Your task to perform on an android device: turn off airplane mode Image 0: 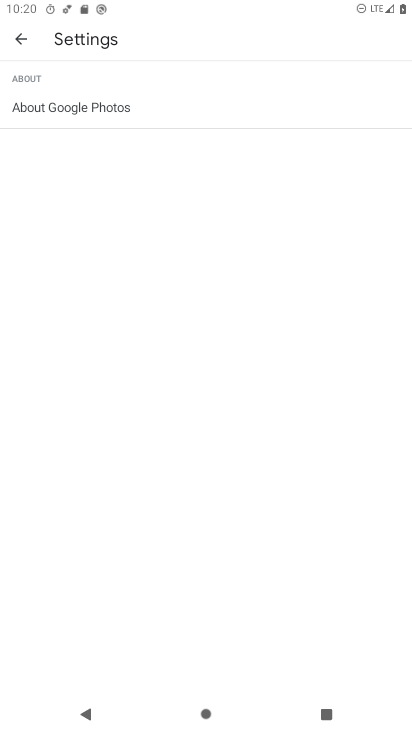
Step 0: press home button
Your task to perform on an android device: turn off airplane mode Image 1: 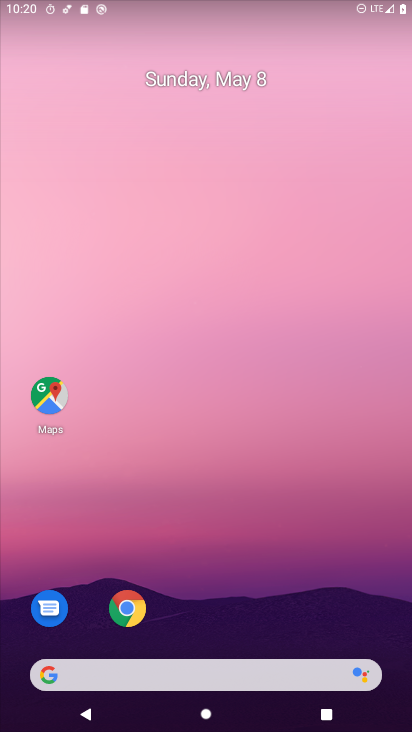
Step 1: drag from (149, 629) to (183, 167)
Your task to perform on an android device: turn off airplane mode Image 2: 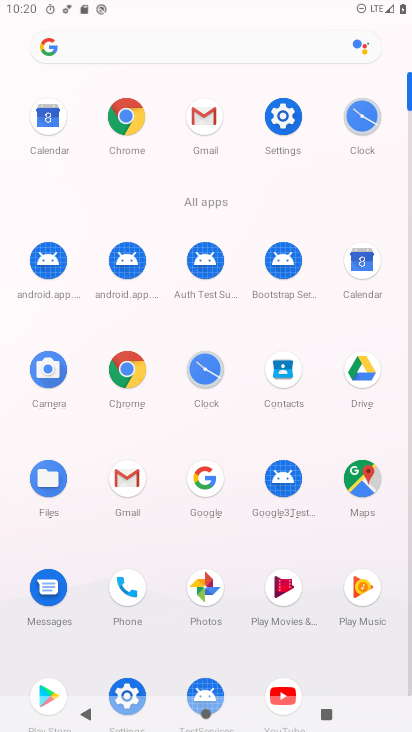
Step 2: click (123, 687)
Your task to perform on an android device: turn off airplane mode Image 3: 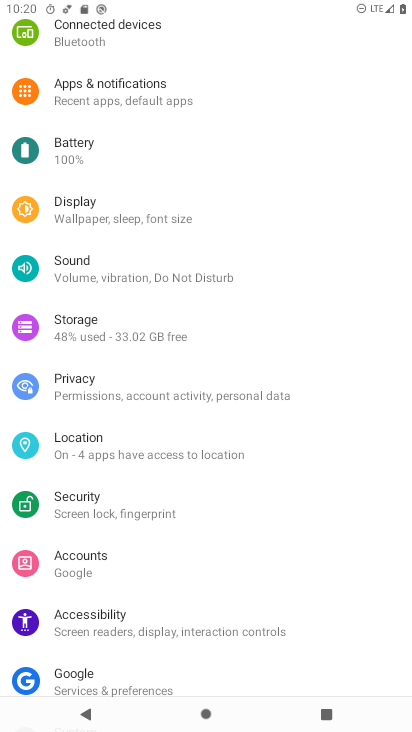
Step 3: drag from (184, 91) to (206, 409)
Your task to perform on an android device: turn off airplane mode Image 4: 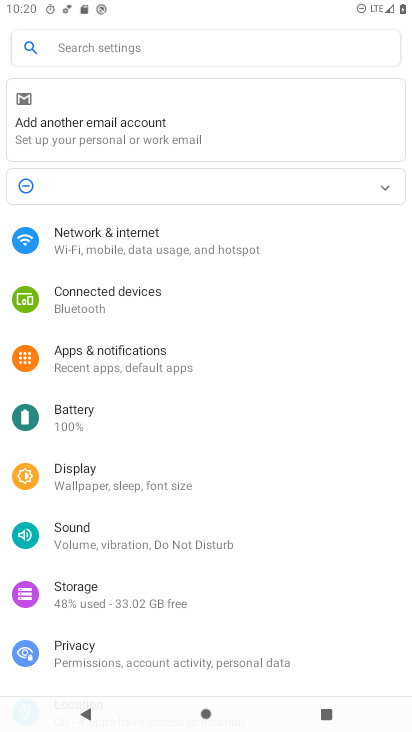
Step 4: click (193, 247)
Your task to perform on an android device: turn off airplane mode Image 5: 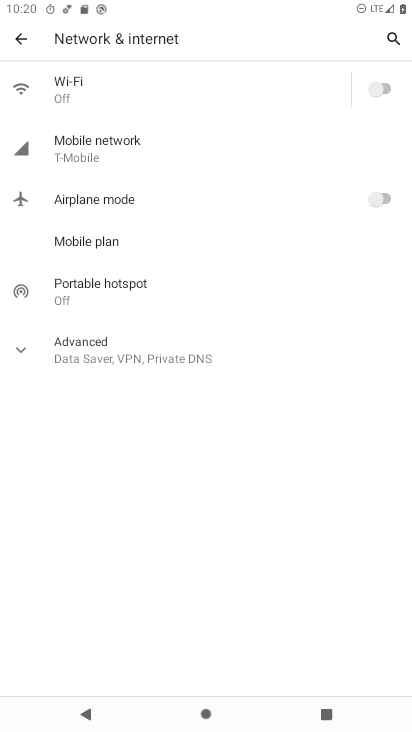
Step 5: task complete